Your task to perform on an android device: Go to Amazon Image 0: 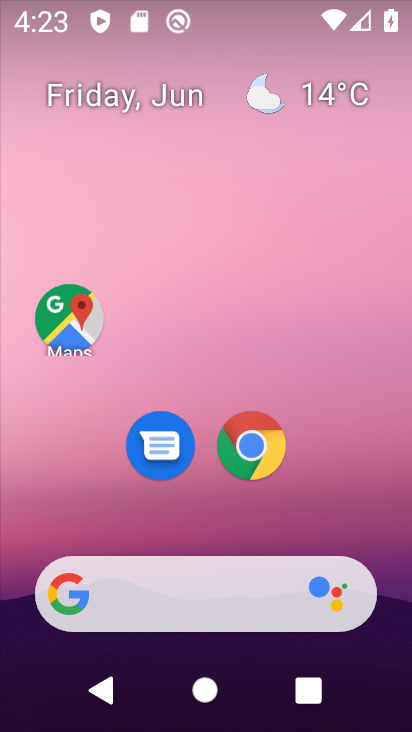
Step 0: drag from (385, 544) to (330, 179)
Your task to perform on an android device: Go to Amazon Image 1: 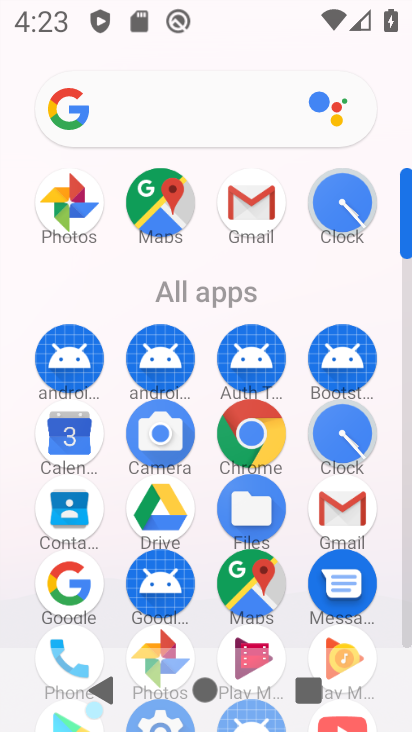
Step 1: click (259, 432)
Your task to perform on an android device: Go to Amazon Image 2: 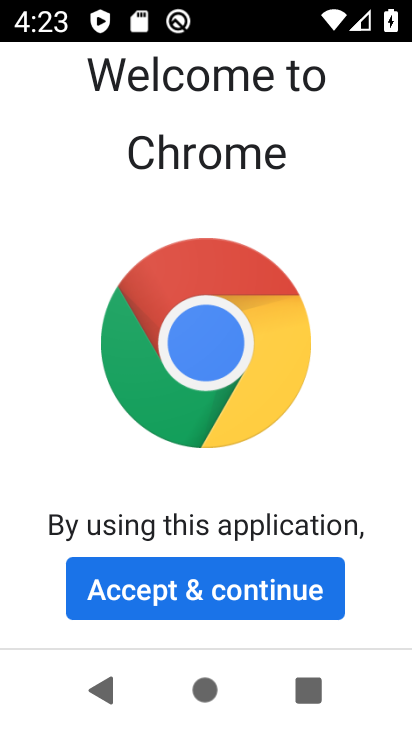
Step 2: click (246, 609)
Your task to perform on an android device: Go to Amazon Image 3: 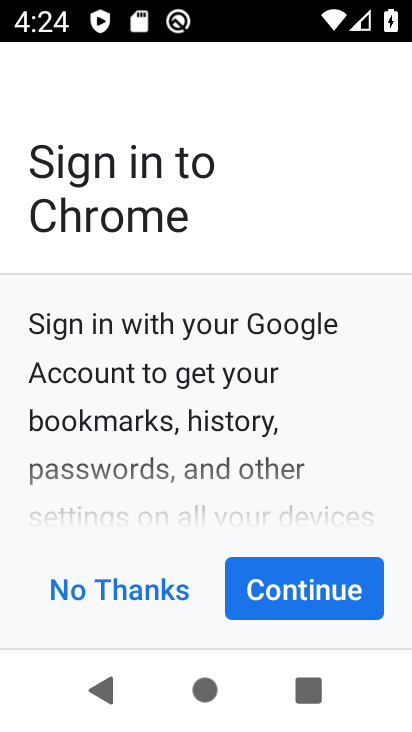
Step 3: click (328, 605)
Your task to perform on an android device: Go to Amazon Image 4: 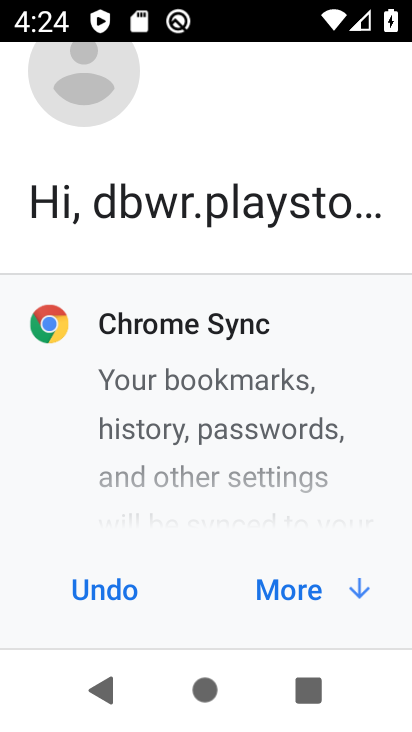
Step 4: click (328, 605)
Your task to perform on an android device: Go to Amazon Image 5: 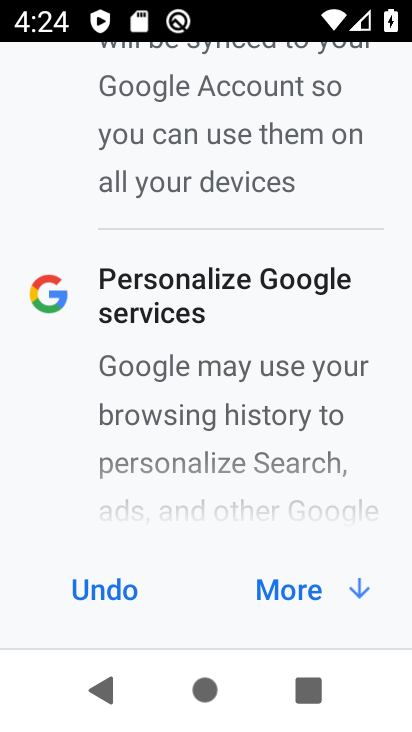
Step 5: click (328, 605)
Your task to perform on an android device: Go to Amazon Image 6: 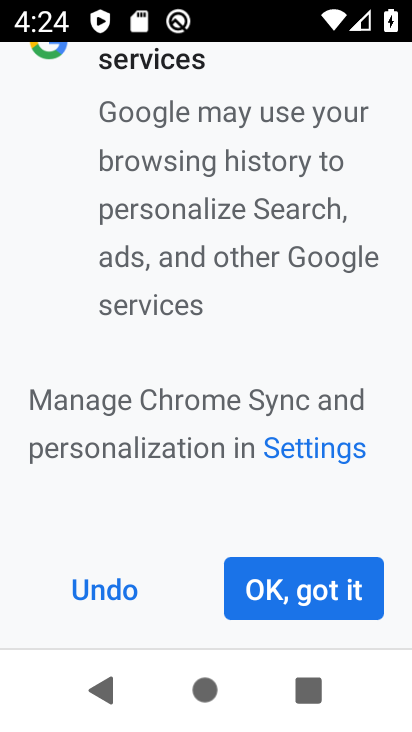
Step 6: click (328, 605)
Your task to perform on an android device: Go to Amazon Image 7: 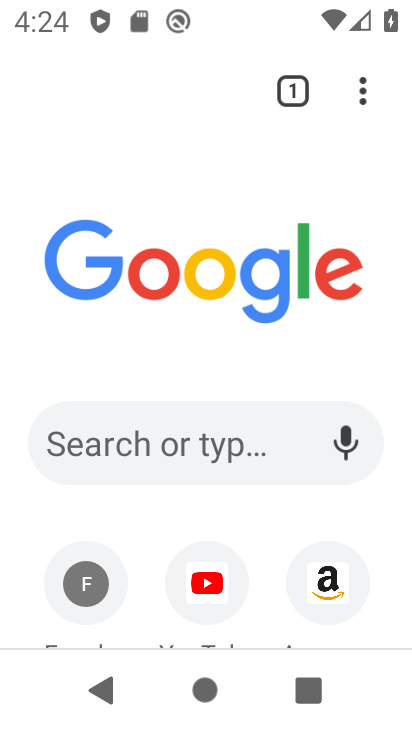
Step 7: drag from (396, 591) to (370, 259)
Your task to perform on an android device: Go to Amazon Image 8: 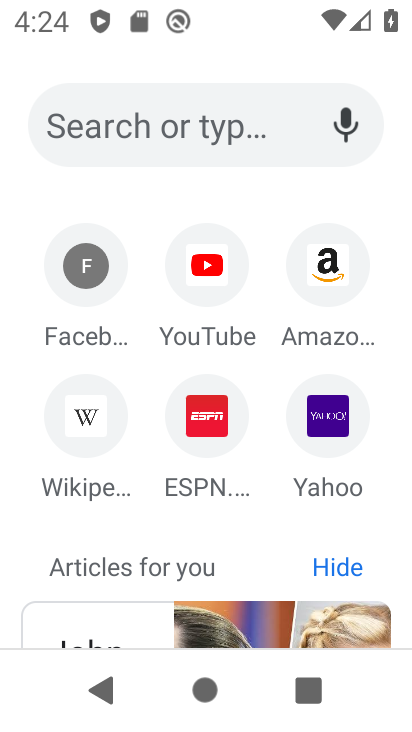
Step 8: click (331, 295)
Your task to perform on an android device: Go to Amazon Image 9: 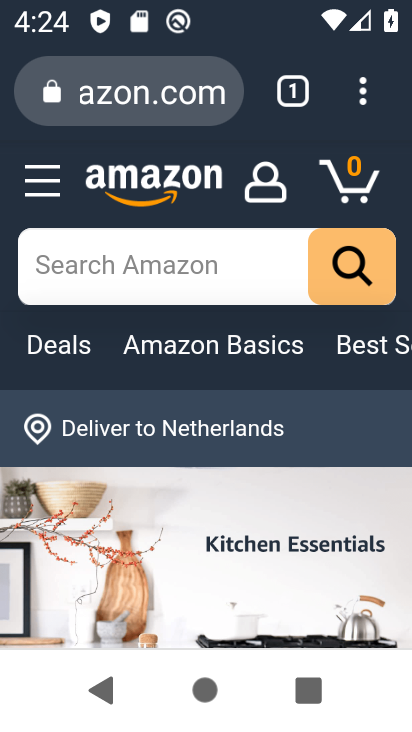
Step 9: task complete